Your task to perform on an android device: turn on sleep mode Image 0: 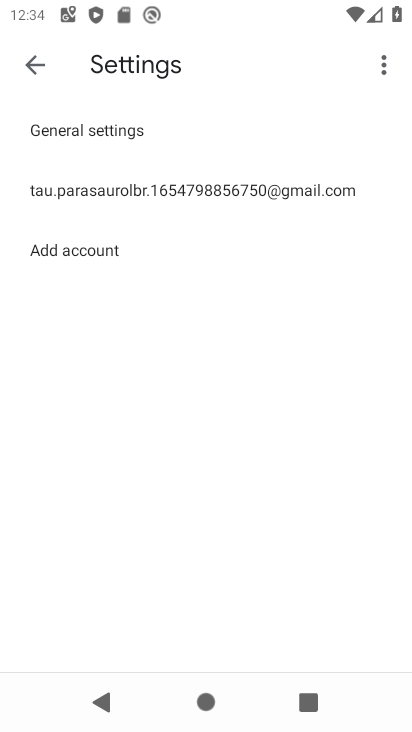
Step 0: press home button
Your task to perform on an android device: turn on sleep mode Image 1: 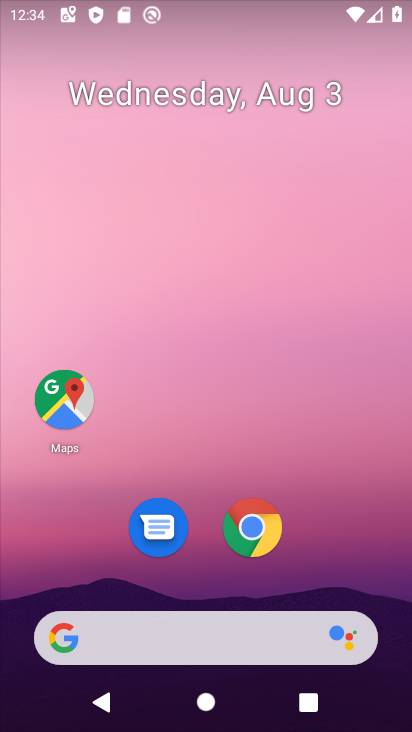
Step 1: drag from (198, 536) to (229, 42)
Your task to perform on an android device: turn on sleep mode Image 2: 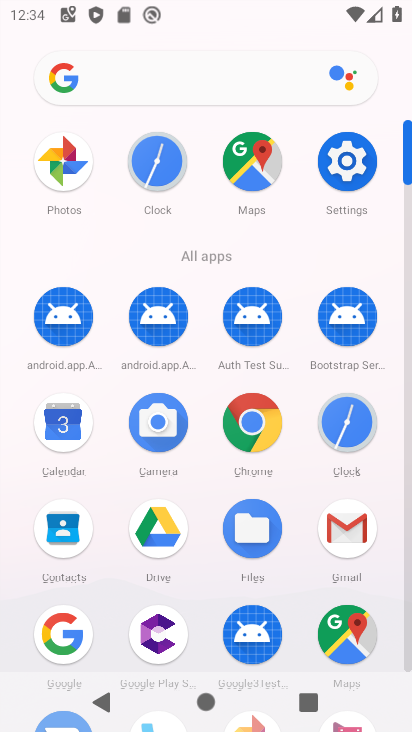
Step 2: click (361, 171)
Your task to perform on an android device: turn on sleep mode Image 3: 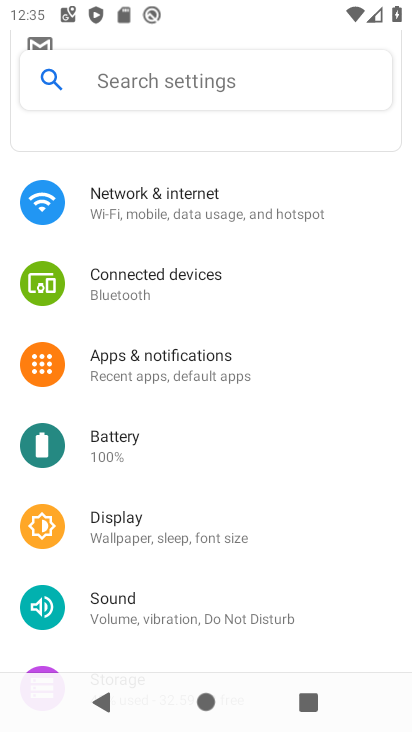
Step 3: click (208, 87)
Your task to perform on an android device: turn on sleep mode Image 4: 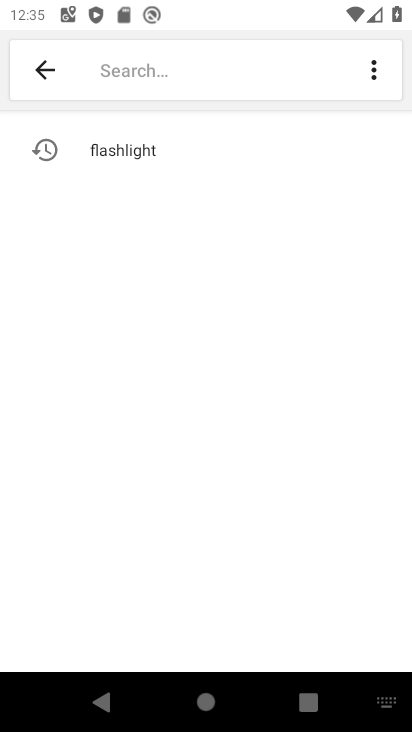
Step 4: type "sleep mode"
Your task to perform on an android device: turn on sleep mode Image 5: 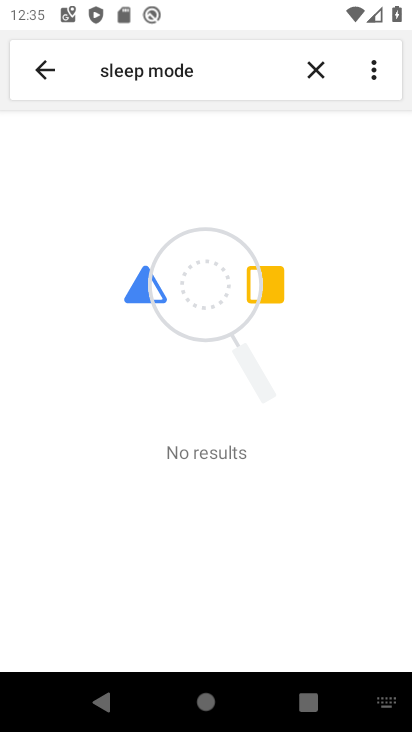
Step 5: click (150, 206)
Your task to perform on an android device: turn on sleep mode Image 6: 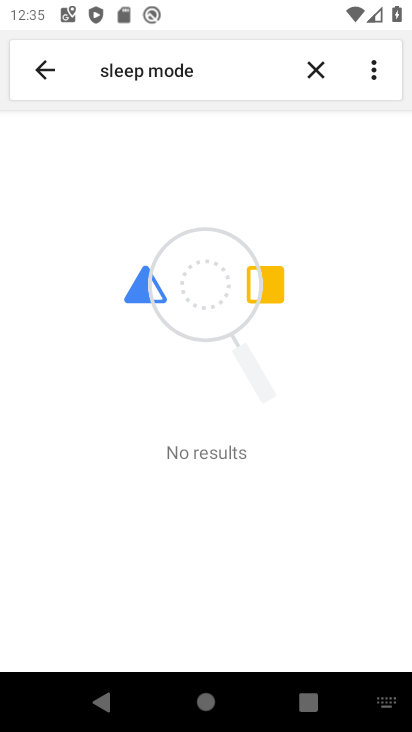
Step 6: task complete